Your task to perform on an android device: change the clock display to show seconds Image 0: 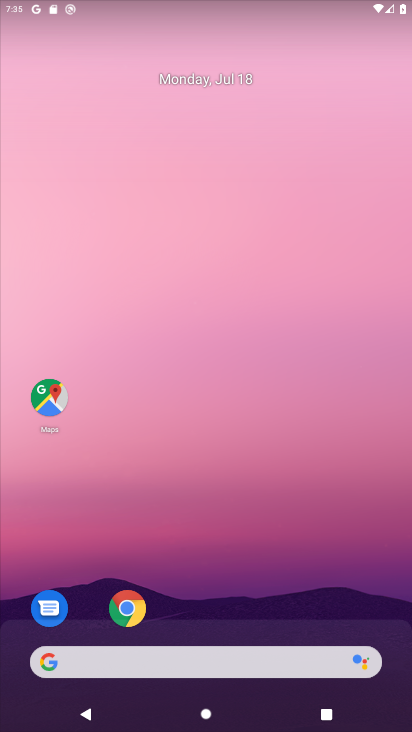
Step 0: drag from (198, 632) to (151, 13)
Your task to perform on an android device: change the clock display to show seconds Image 1: 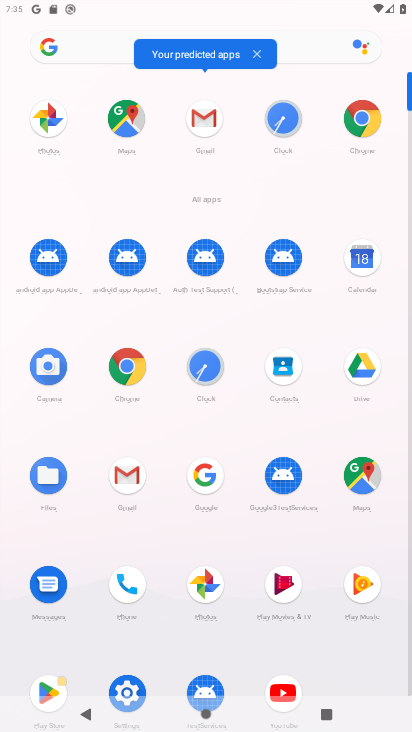
Step 1: click (46, 682)
Your task to perform on an android device: change the clock display to show seconds Image 2: 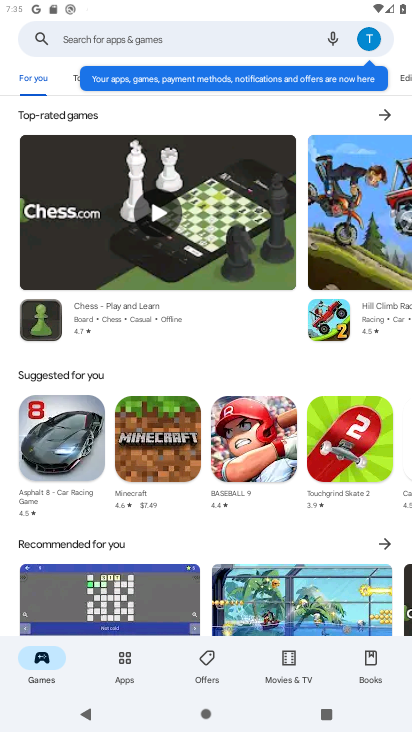
Step 2: press home button
Your task to perform on an android device: change the clock display to show seconds Image 3: 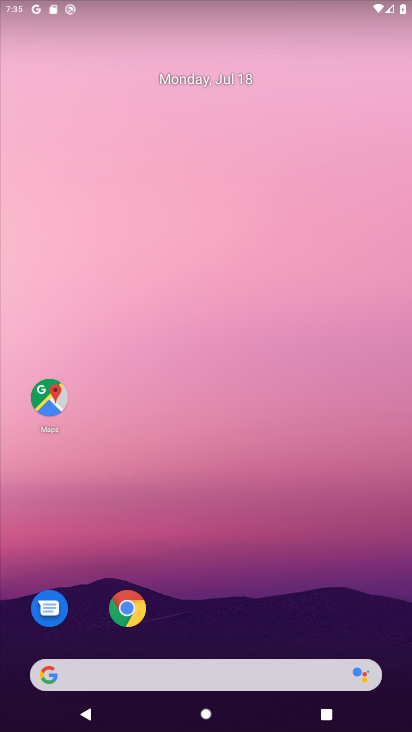
Step 3: drag from (232, 650) to (363, 31)
Your task to perform on an android device: change the clock display to show seconds Image 4: 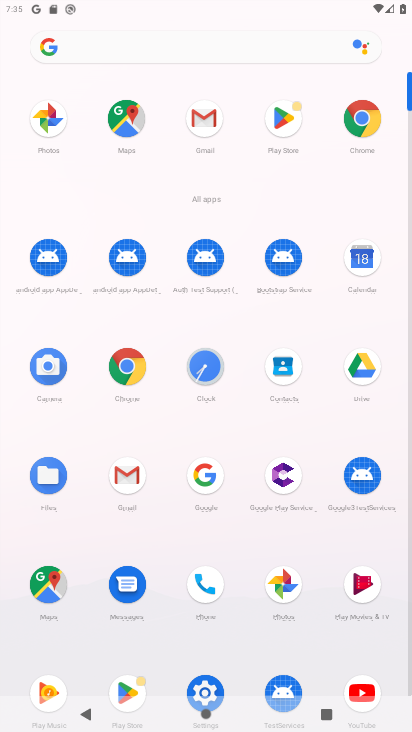
Step 4: click (196, 377)
Your task to perform on an android device: change the clock display to show seconds Image 5: 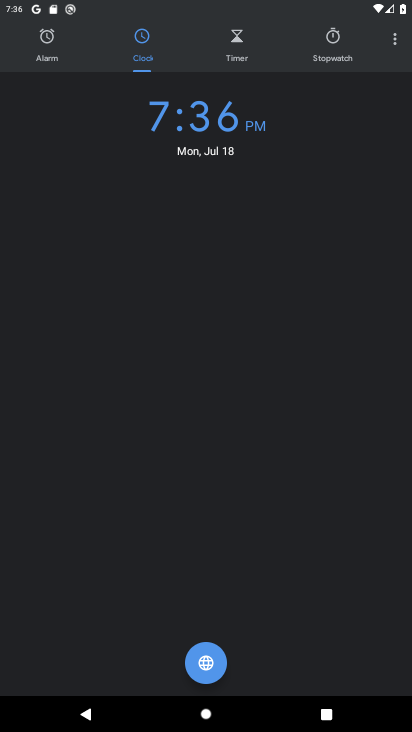
Step 5: click (395, 45)
Your task to perform on an android device: change the clock display to show seconds Image 6: 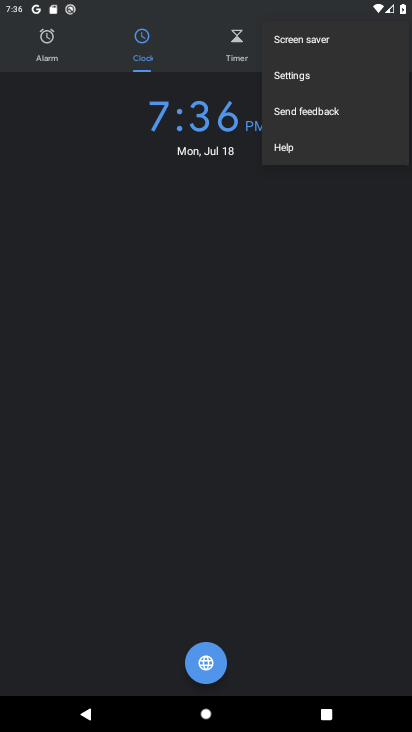
Step 6: click (302, 80)
Your task to perform on an android device: change the clock display to show seconds Image 7: 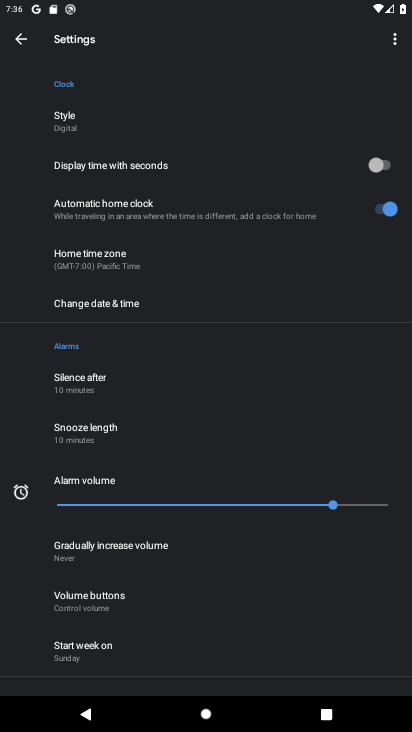
Step 7: click (385, 165)
Your task to perform on an android device: change the clock display to show seconds Image 8: 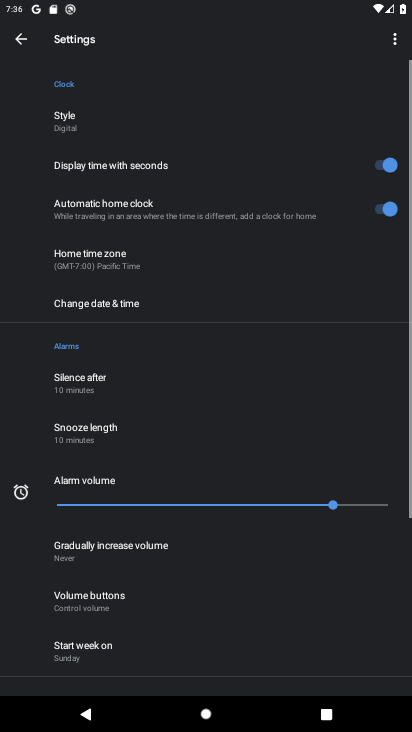
Step 8: task complete